Your task to perform on an android device: open chrome privacy settings Image 0: 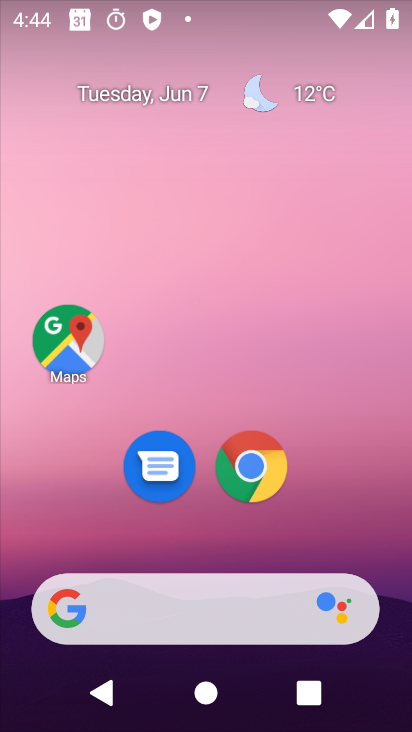
Step 0: click (260, 467)
Your task to perform on an android device: open chrome privacy settings Image 1: 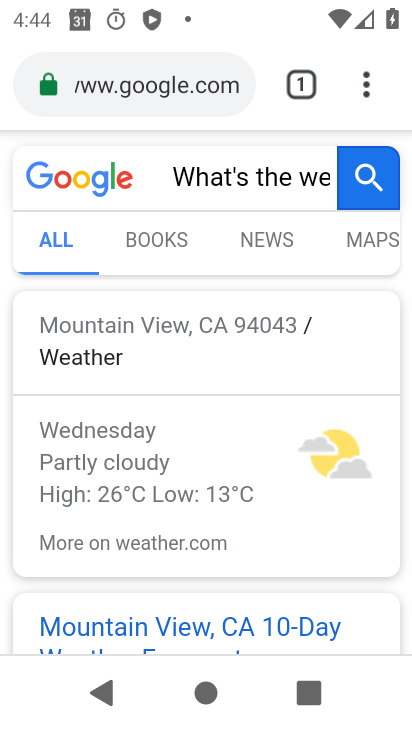
Step 1: click (362, 99)
Your task to perform on an android device: open chrome privacy settings Image 2: 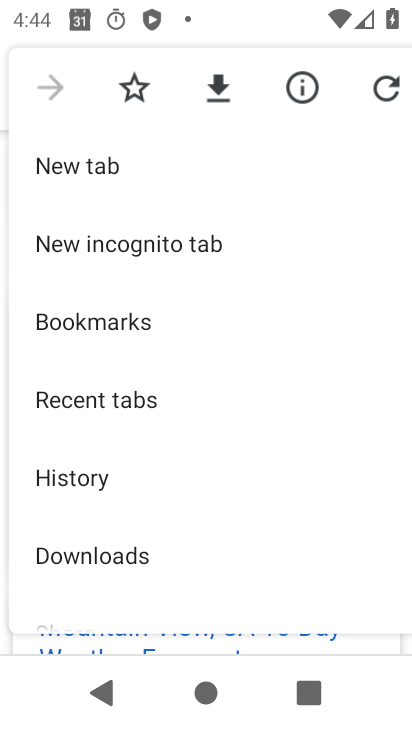
Step 2: drag from (285, 609) to (253, 204)
Your task to perform on an android device: open chrome privacy settings Image 3: 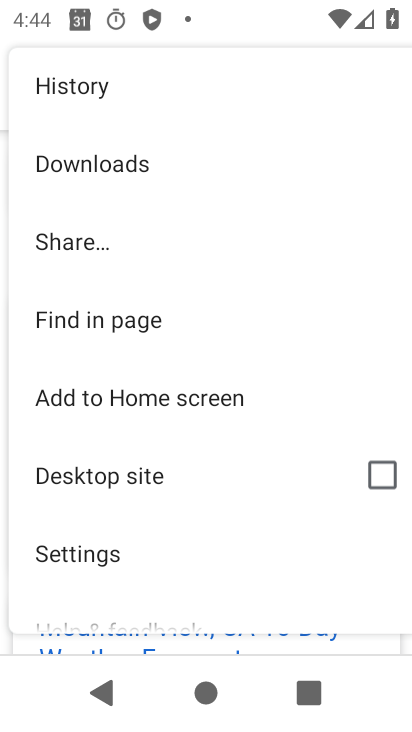
Step 3: drag from (206, 579) to (173, 232)
Your task to perform on an android device: open chrome privacy settings Image 4: 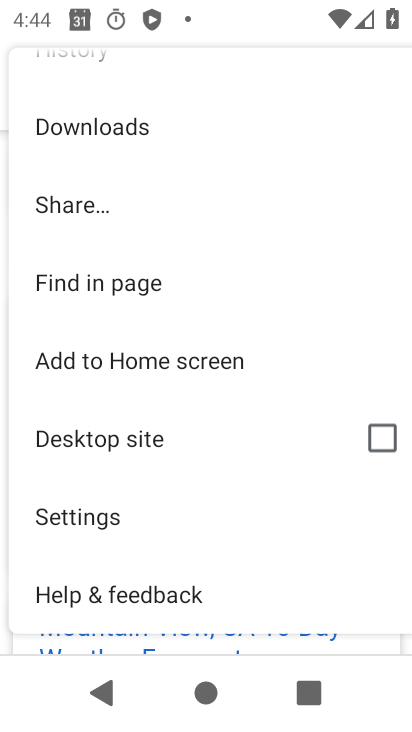
Step 4: click (154, 528)
Your task to perform on an android device: open chrome privacy settings Image 5: 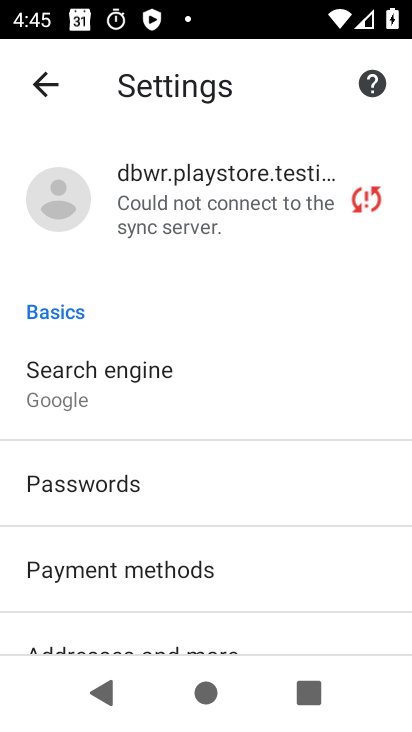
Step 5: drag from (220, 630) to (199, 212)
Your task to perform on an android device: open chrome privacy settings Image 6: 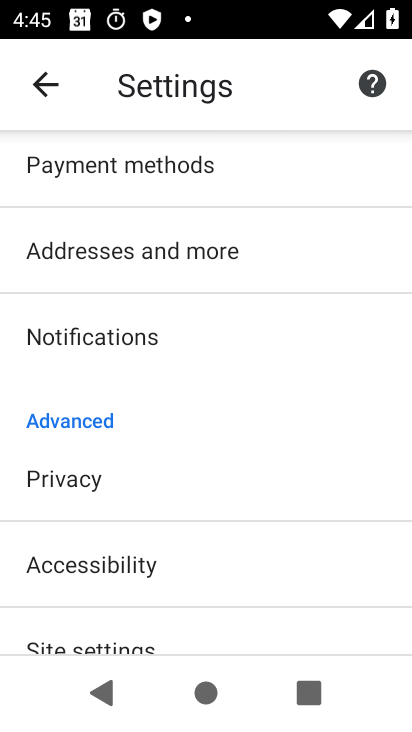
Step 6: click (167, 497)
Your task to perform on an android device: open chrome privacy settings Image 7: 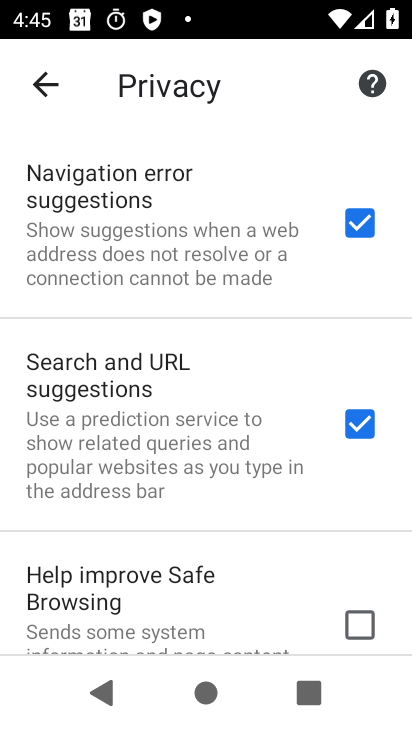
Step 7: task complete